Your task to perform on an android device: remove spam from my inbox in the gmail app Image 0: 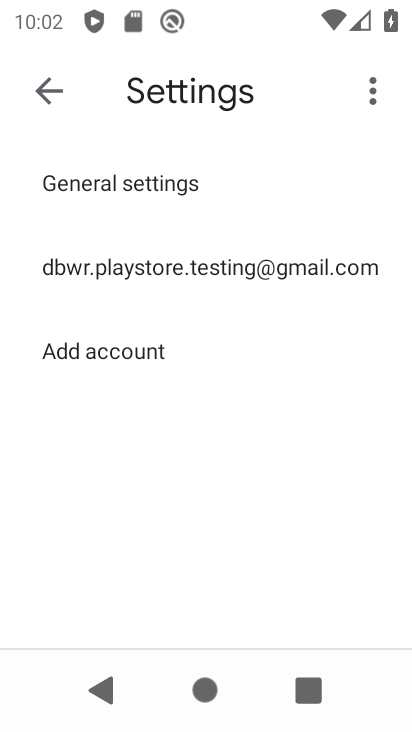
Step 0: press home button
Your task to perform on an android device: remove spam from my inbox in the gmail app Image 1: 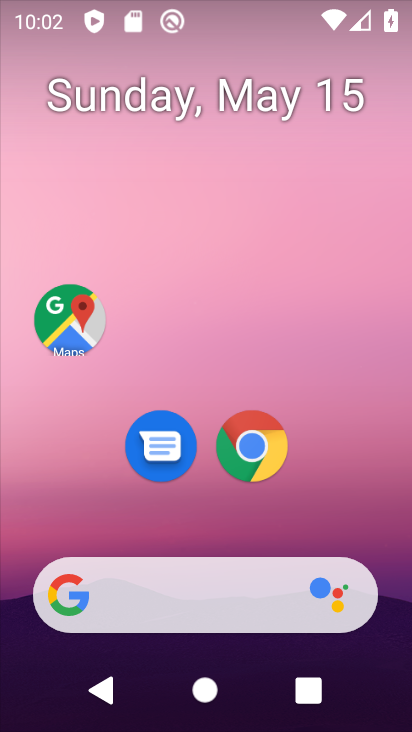
Step 1: drag from (366, 450) to (401, 180)
Your task to perform on an android device: remove spam from my inbox in the gmail app Image 2: 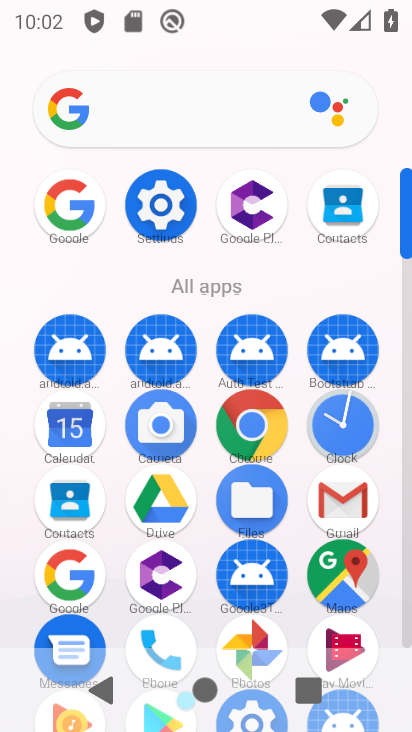
Step 2: click (365, 493)
Your task to perform on an android device: remove spam from my inbox in the gmail app Image 3: 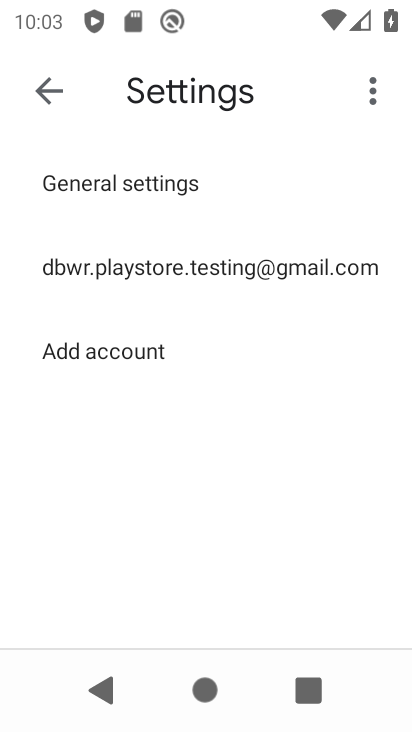
Step 3: press back button
Your task to perform on an android device: remove spam from my inbox in the gmail app Image 4: 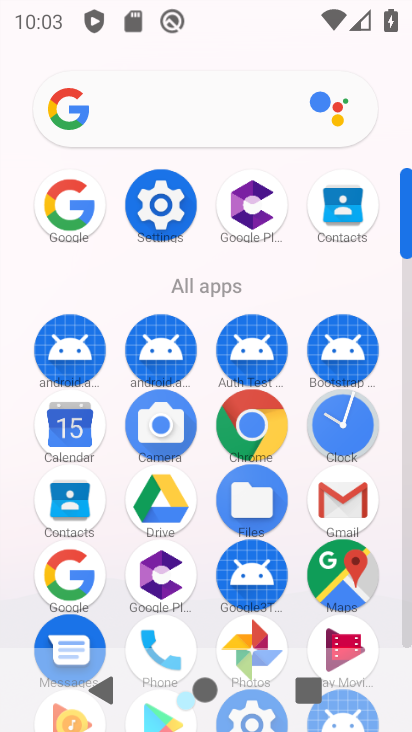
Step 4: click (347, 512)
Your task to perform on an android device: remove spam from my inbox in the gmail app Image 5: 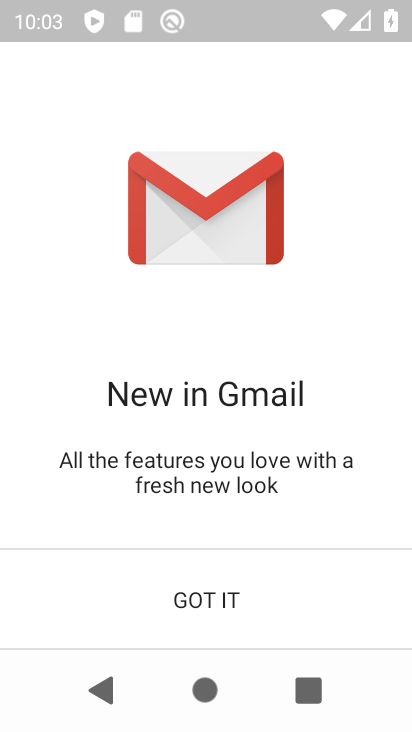
Step 5: click (196, 605)
Your task to perform on an android device: remove spam from my inbox in the gmail app Image 6: 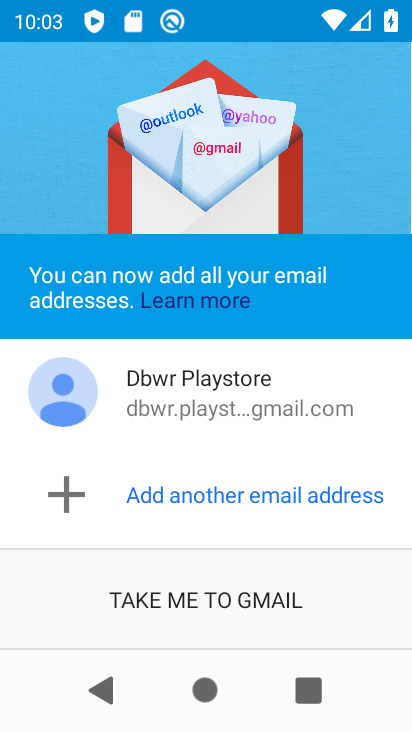
Step 6: click (196, 605)
Your task to perform on an android device: remove spam from my inbox in the gmail app Image 7: 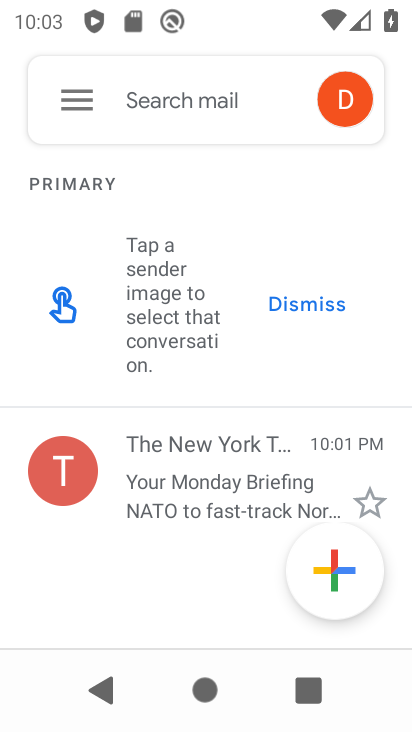
Step 7: click (70, 102)
Your task to perform on an android device: remove spam from my inbox in the gmail app Image 8: 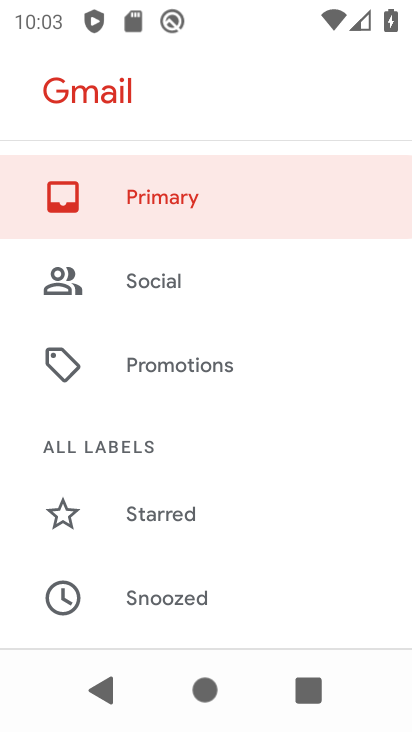
Step 8: drag from (181, 616) to (185, 210)
Your task to perform on an android device: remove spam from my inbox in the gmail app Image 9: 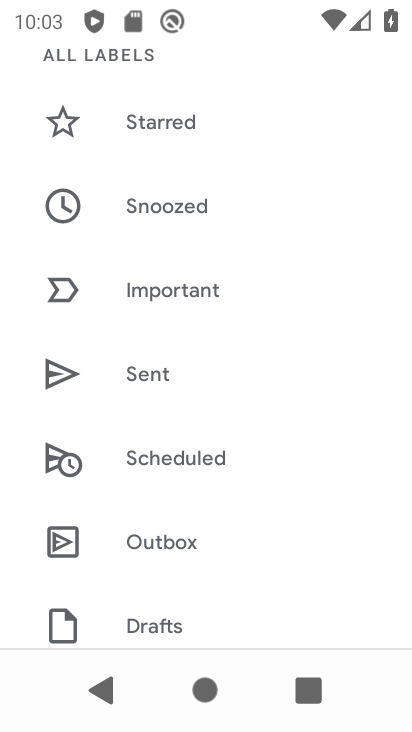
Step 9: drag from (176, 584) to (195, 237)
Your task to perform on an android device: remove spam from my inbox in the gmail app Image 10: 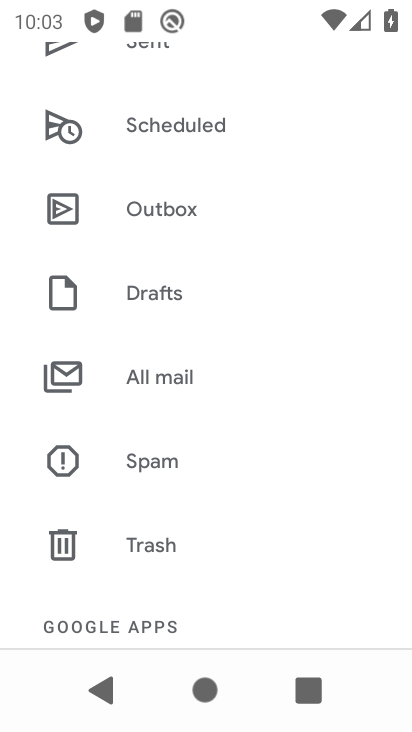
Step 10: click (158, 463)
Your task to perform on an android device: remove spam from my inbox in the gmail app Image 11: 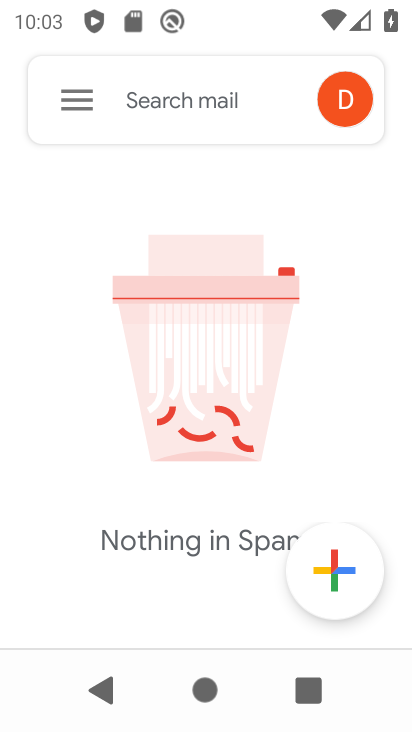
Step 11: task complete